Your task to perform on an android device: Set the phone to "Do not disturb". Image 0: 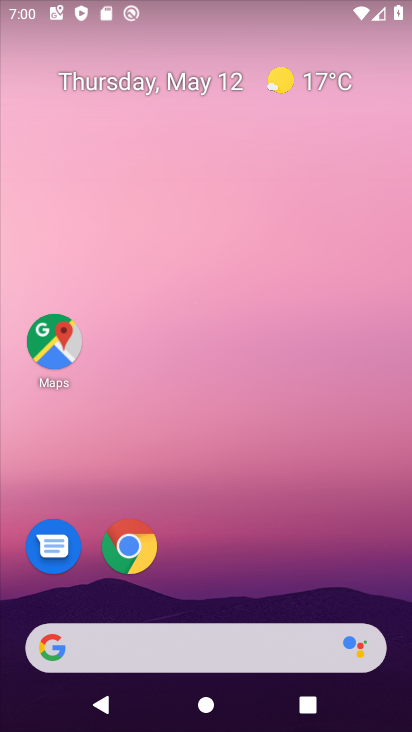
Step 0: drag from (231, 569) to (168, 144)
Your task to perform on an android device: Set the phone to "Do not disturb". Image 1: 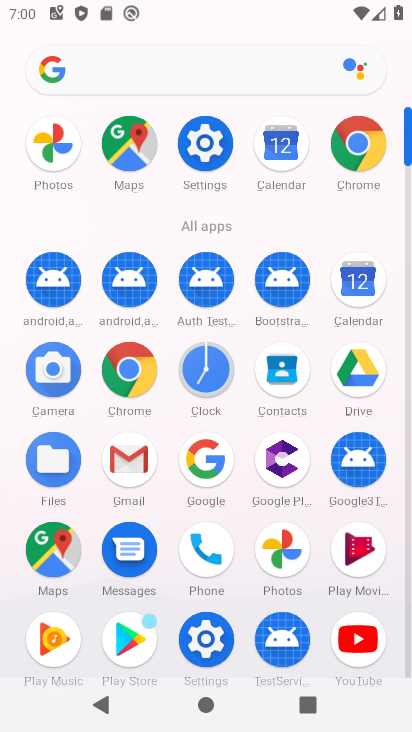
Step 1: click (202, 143)
Your task to perform on an android device: Set the phone to "Do not disturb". Image 2: 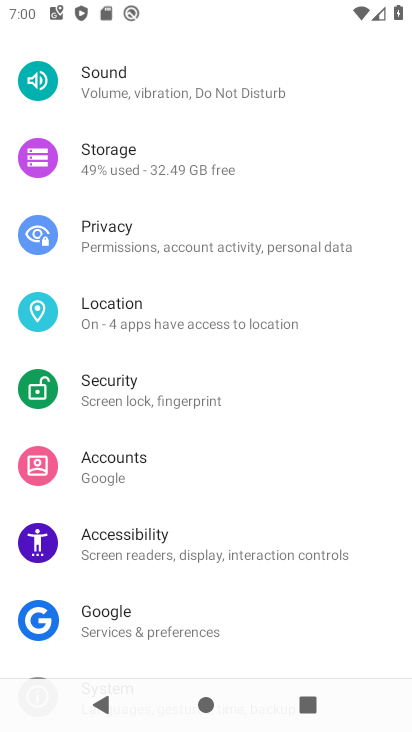
Step 2: click (107, 80)
Your task to perform on an android device: Set the phone to "Do not disturb". Image 3: 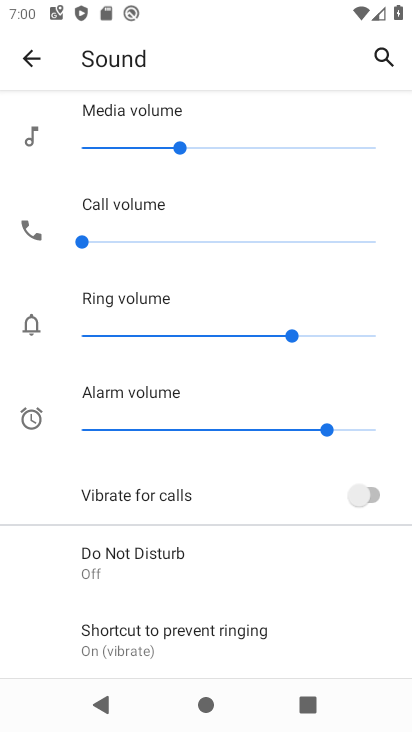
Step 3: click (150, 547)
Your task to perform on an android device: Set the phone to "Do not disturb". Image 4: 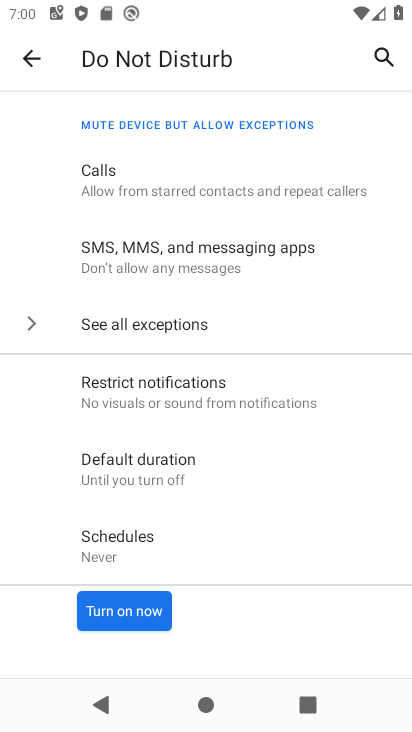
Step 4: click (141, 614)
Your task to perform on an android device: Set the phone to "Do not disturb". Image 5: 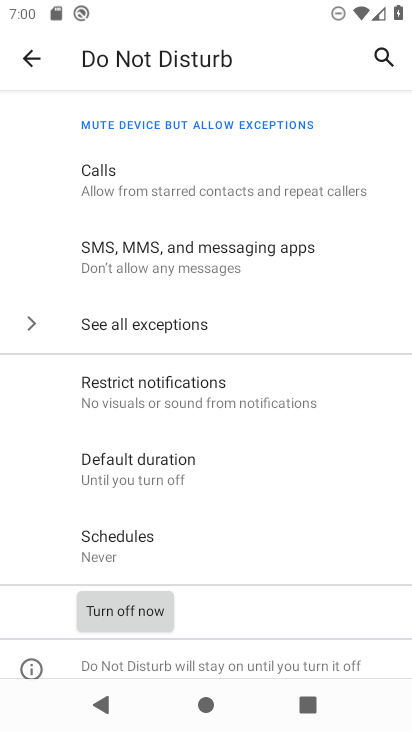
Step 5: task complete